Your task to perform on an android device: Go to calendar. Show me events next week Image 0: 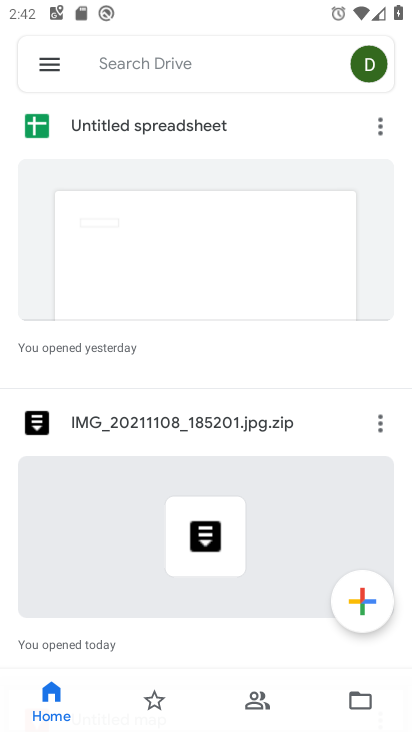
Step 0: press home button
Your task to perform on an android device: Go to calendar. Show me events next week Image 1: 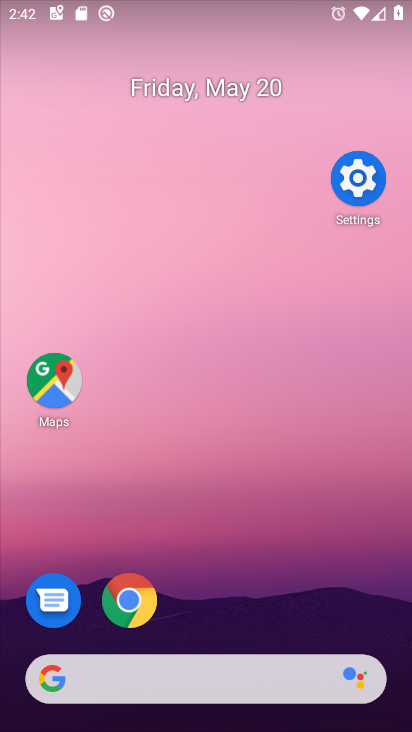
Step 1: drag from (207, 595) to (254, 13)
Your task to perform on an android device: Go to calendar. Show me events next week Image 2: 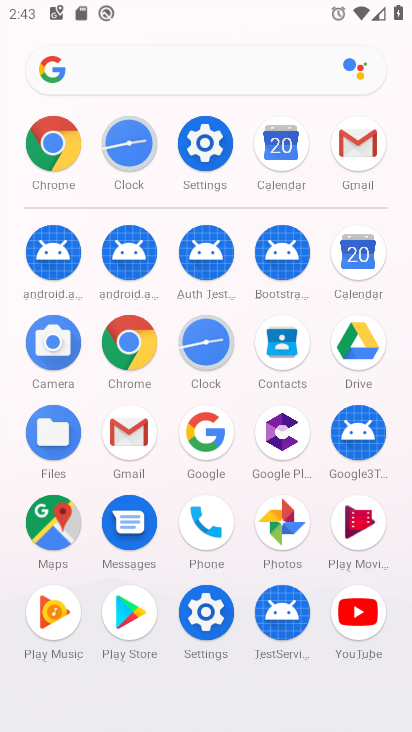
Step 2: click (358, 260)
Your task to perform on an android device: Go to calendar. Show me events next week Image 3: 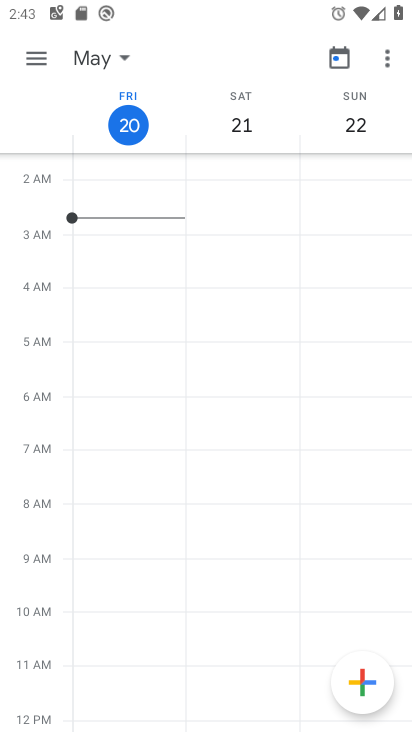
Step 3: click (37, 71)
Your task to perform on an android device: Go to calendar. Show me events next week Image 4: 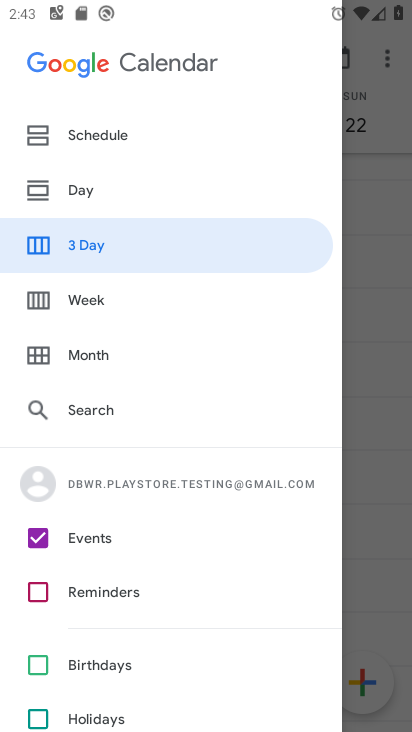
Step 4: click (124, 310)
Your task to perform on an android device: Go to calendar. Show me events next week Image 5: 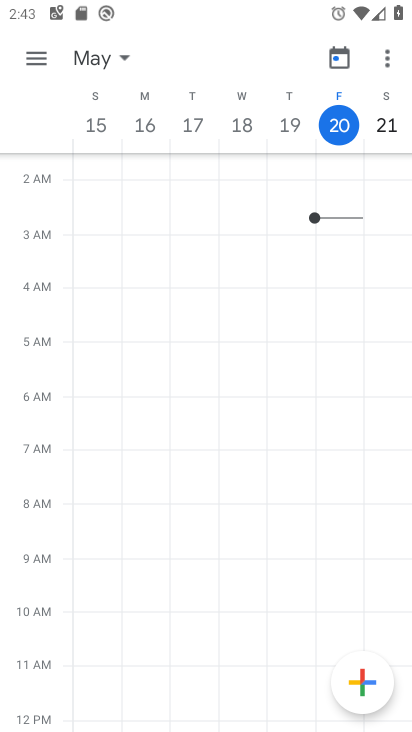
Step 5: task complete